Your task to perform on an android device: Search for sushi restaurants on Maps Image 0: 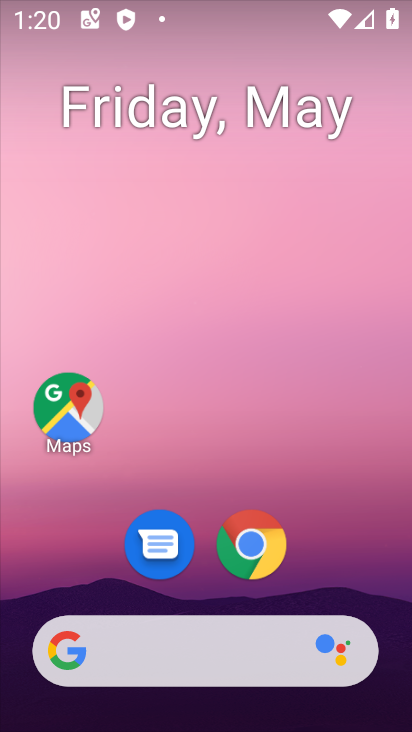
Step 0: click (74, 399)
Your task to perform on an android device: Search for sushi restaurants on Maps Image 1: 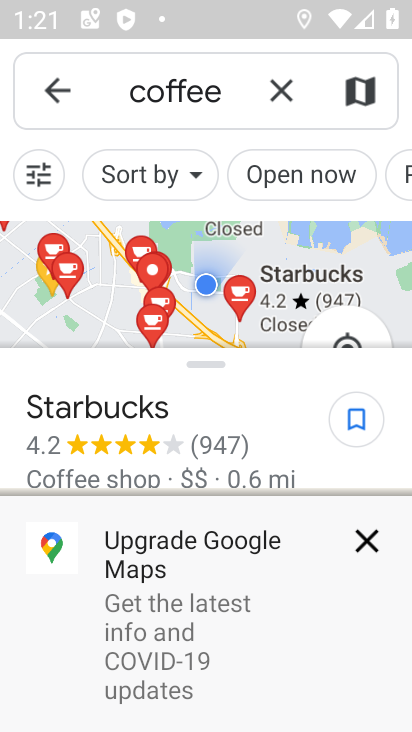
Step 1: click (279, 83)
Your task to perform on an android device: Search for sushi restaurants on Maps Image 2: 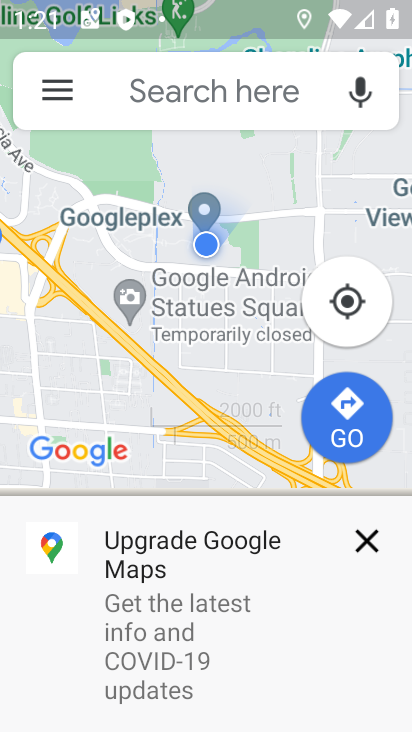
Step 2: click (182, 83)
Your task to perform on an android device: Search for sushi restaurants on Maps Image 3: 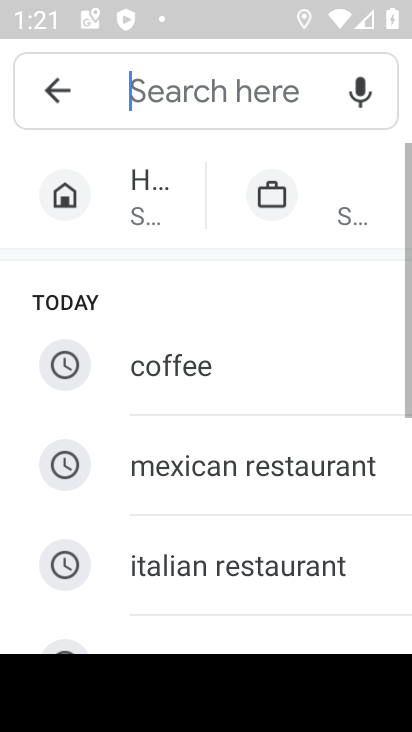
Step 3: drag from (182, 571) to (225, 253)
Your task to perform on an android device: Search for sushi restaurants on Maps Image 4: 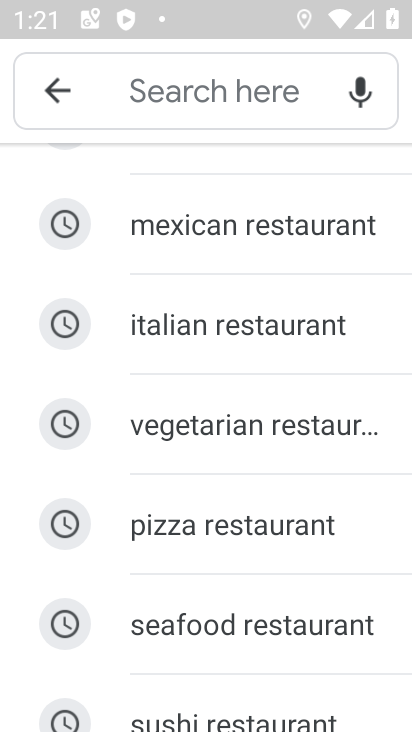
Step 4: click (216, 718)
Your task to perform on an android device: Search for sushi restaurants on Maps Image 5: 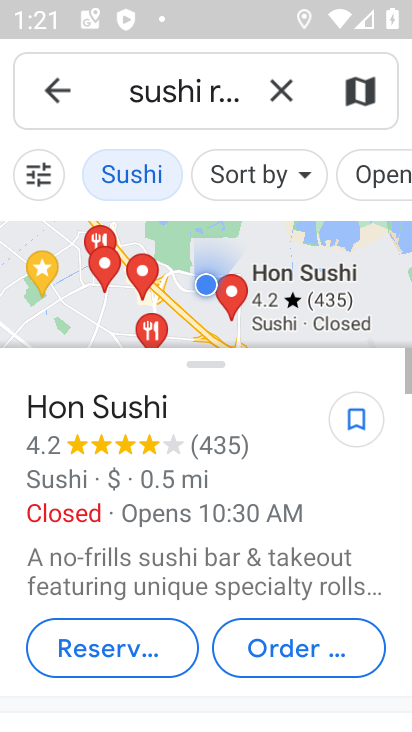
Step 5: task complete